Your task to perform on an android device: Open ESPN.com Image 0: 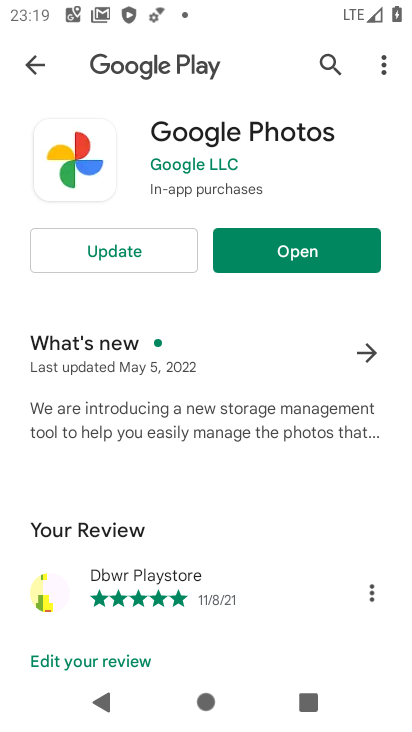
Step 0: press home button
Your task to perform on an android device: Open ESPN.com Image 1: 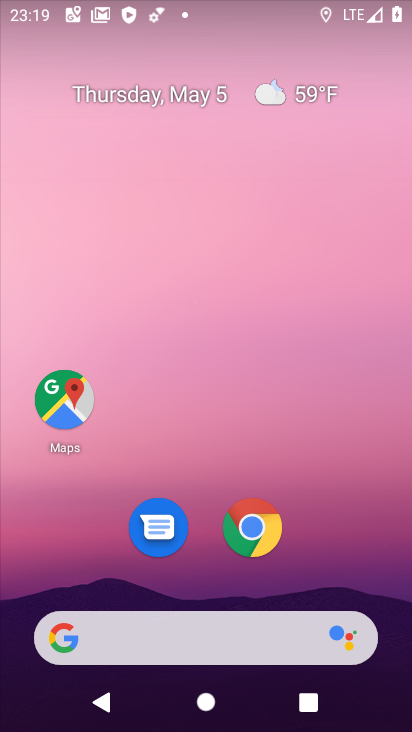
Step 1: click (262, 534)
Your task to perform on an android device: Open ESPN.com Image 2: 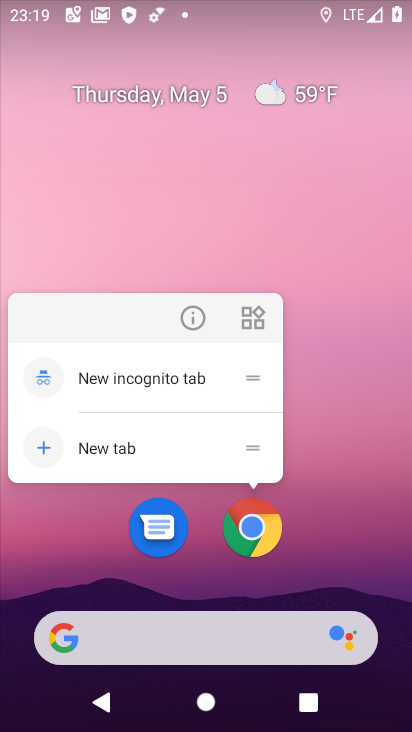
Step 2: click (262, 533)
Your task to perform on an android device: Open ESPN.com Image 3: 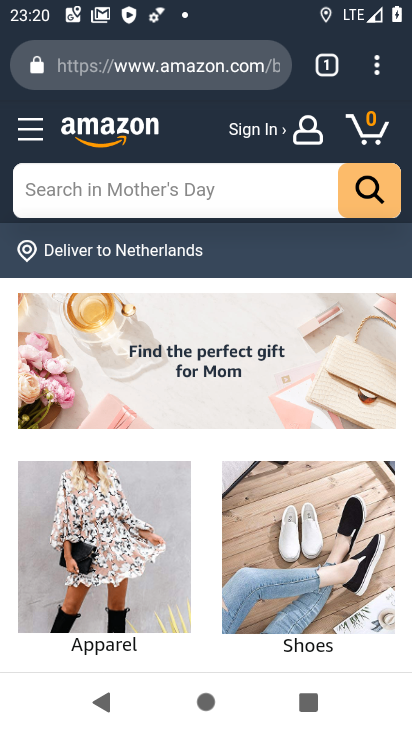
Step 3: click (181, 72)
Your task to perform on an android device: Open ESPN.com Image 4: 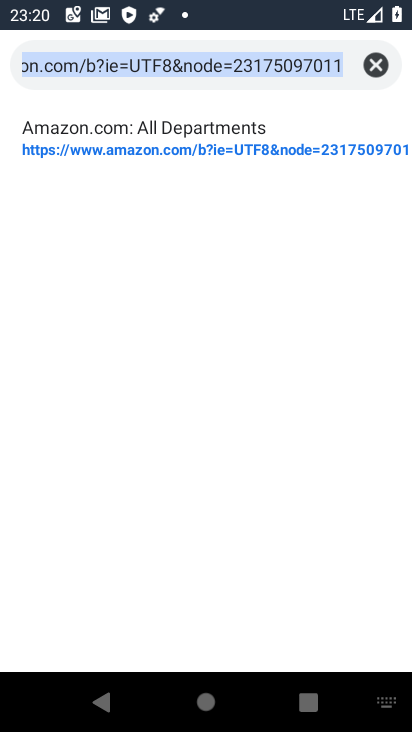
Step 4: type "ESPN.com"
Your task to perform on an android device: Open ESPN.com Image 5: 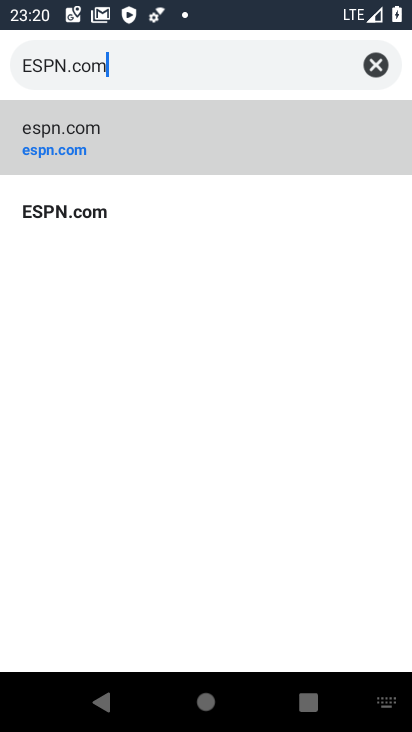
Step 5: click (78, 205)
Your task to perform on an android device: Open ESPN.com Image 6: 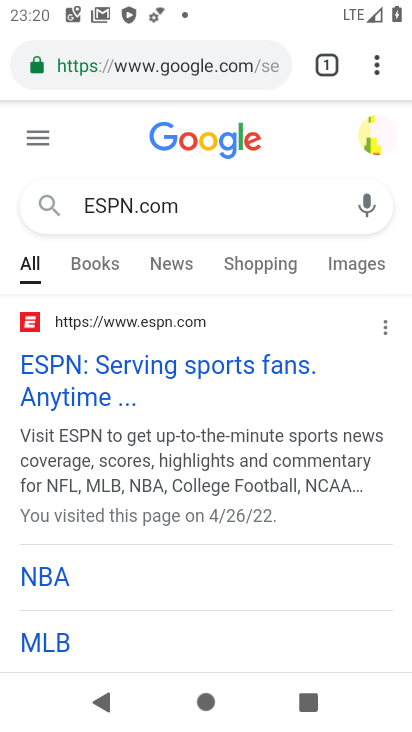
Step 6: task complete